Your task to perform on an android device: change the clock display to show seconds Image 0: 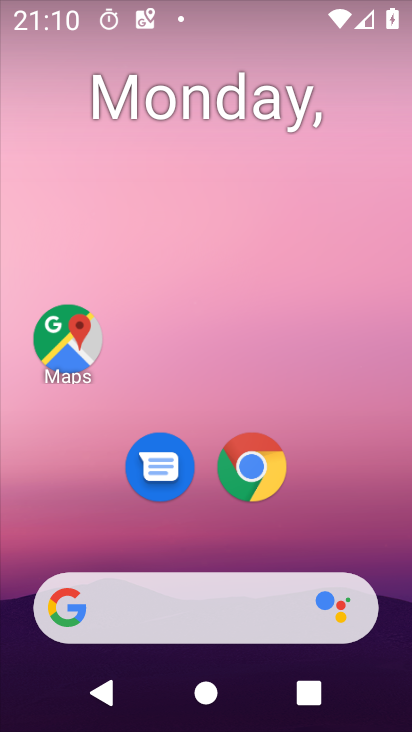
Step 0: drag from (187, 408) to (245, 19)
Your task to perform on an android device: change the clock display to show seconds Image 1: 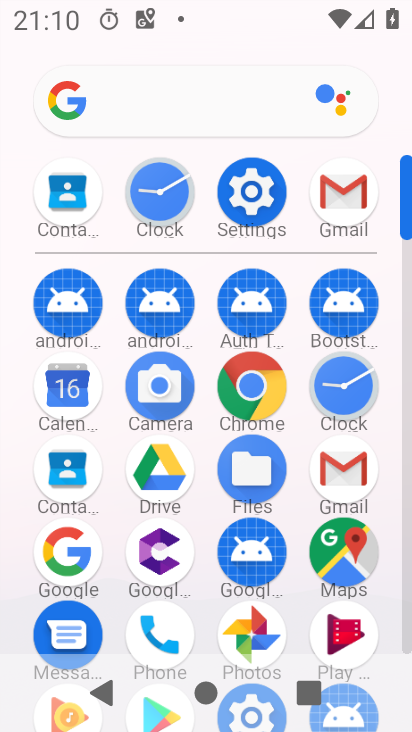
Step 1: click (348, 394)
Your task to perform on an android device: change the clock display to show seconds Image 2: 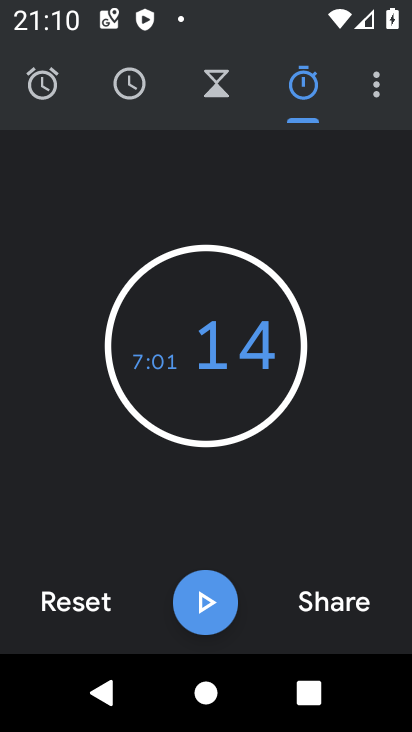
Step 2: click (380, 84)
Your task to perform on an android device: change the clock display to show seconds Image 3: 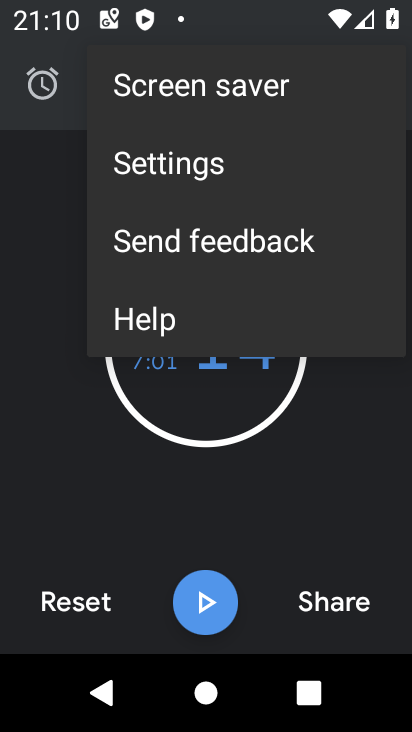
Step 3: click (186, 183)
Your task to perform on an android device: change the clock display to show seconds Image 4: 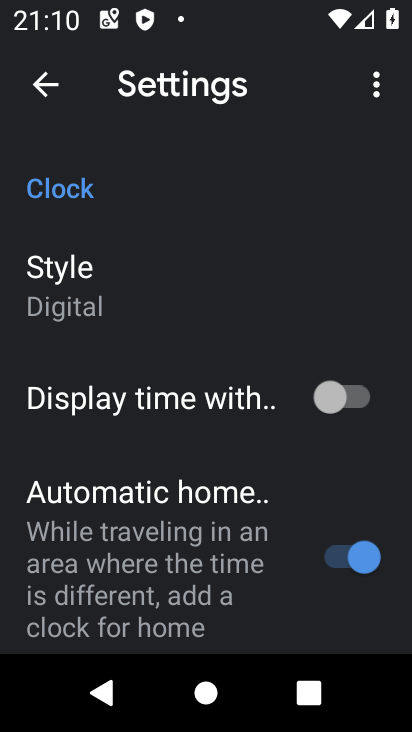
Step 4: click (319, 411)
Your task to perform on an android device: change the clock display to show seconds Image 5: 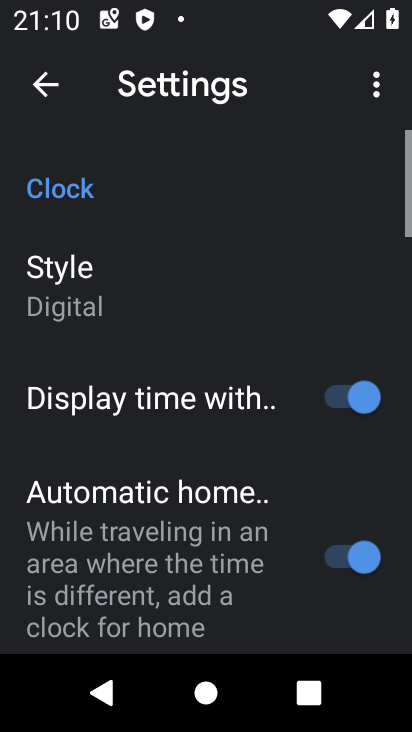
Step 5: task complete